Your task to perform on an android device: Open Android settings Image 0: 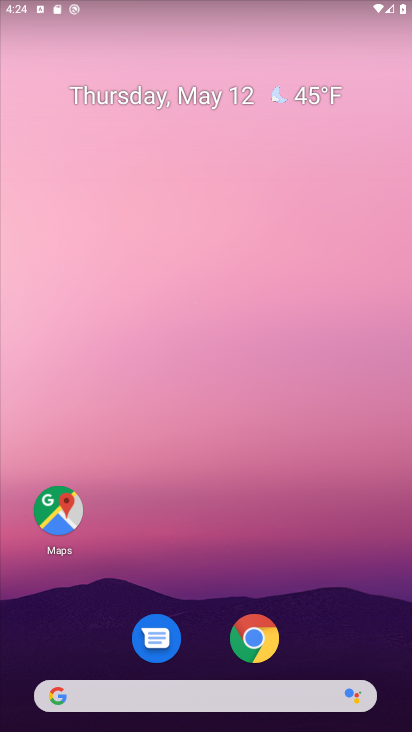
Step 0: drag from (317, 615) to (234, 136)
Your task to perform on an android device: Open Android settings Image 1: 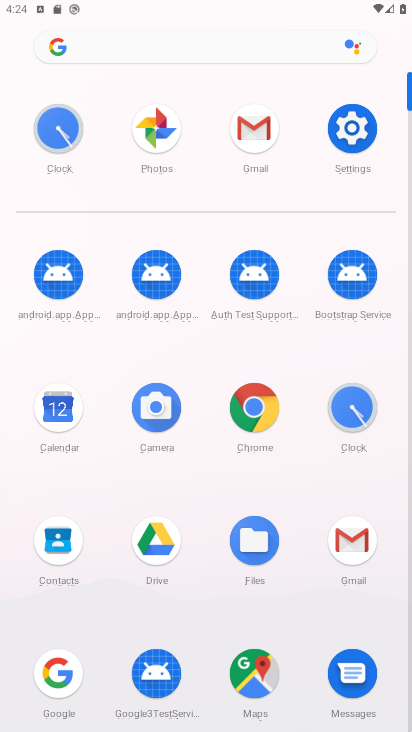
Step 1: click (351, 125)
Your task to perform on an android device: Open Android settings Image 2: 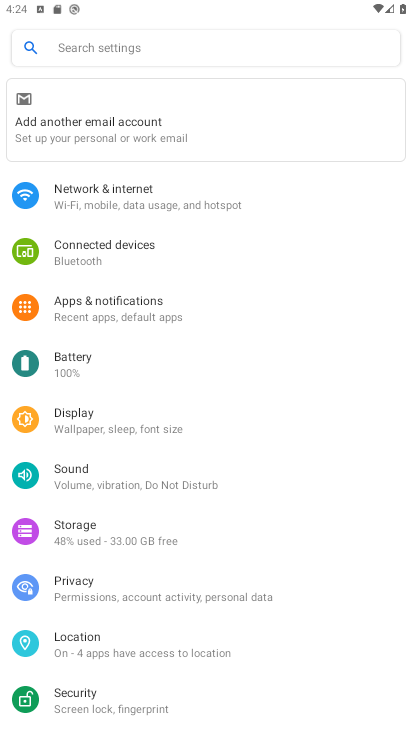
Step 2: drag from (207, 677) to (179, 188)
Your task to perform on an android device: Open Android settings Image 3: 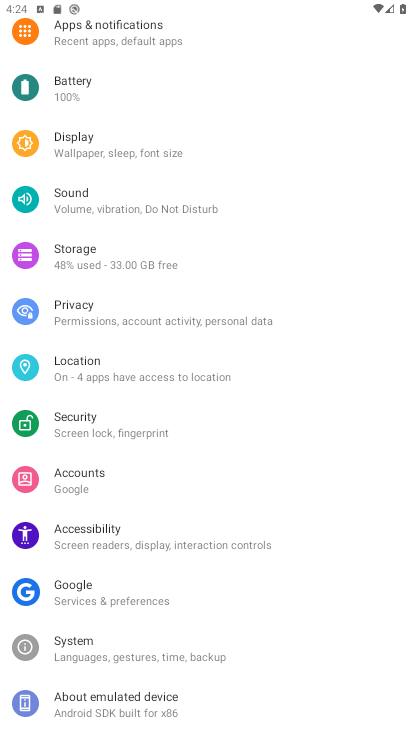
Step 3: click (151, 698)
Your task to perform on an android device: Open Android settings Image 4: 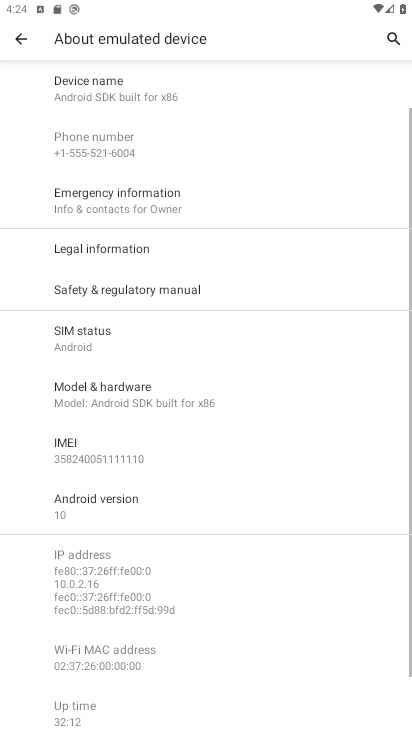
Step 4: click (100, 495)
Your task to perform on an android device: Open Android settings Image 5: 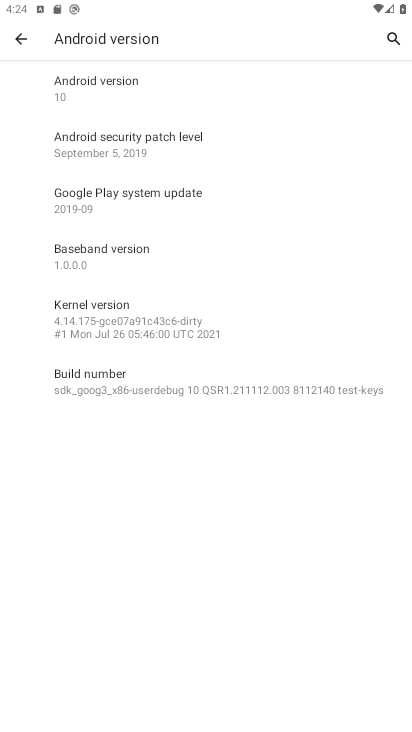
Step 5: task complete